Your task to perform on an android device: move an email to a new category in the gmail app Image 0: 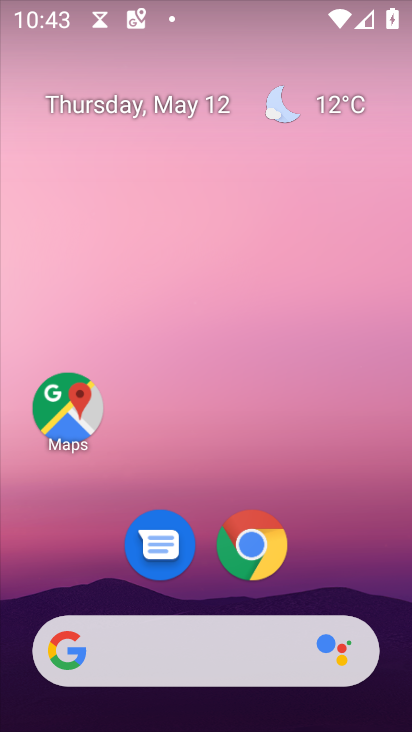
Step 0: press home button
Your task to perform on an android device: move an email to a new category in the gmail app Image 1: 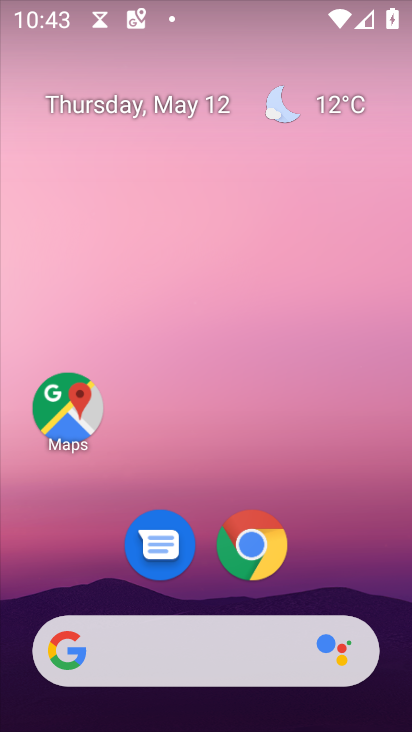
Step 1: drag from (203, 574) to (241, 242)
Your task to perform on an android device: move an email to a new category in the gmail app Image 2: 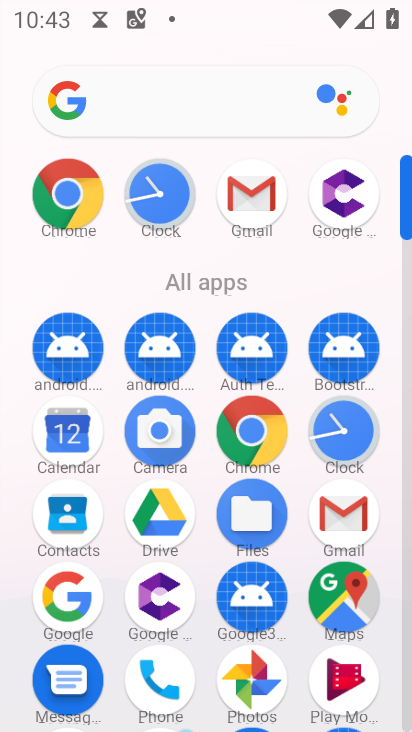
Step 2: click (254, 201)
Your task to perform on an android device: move an email to a new category in the gmail app Image 3: 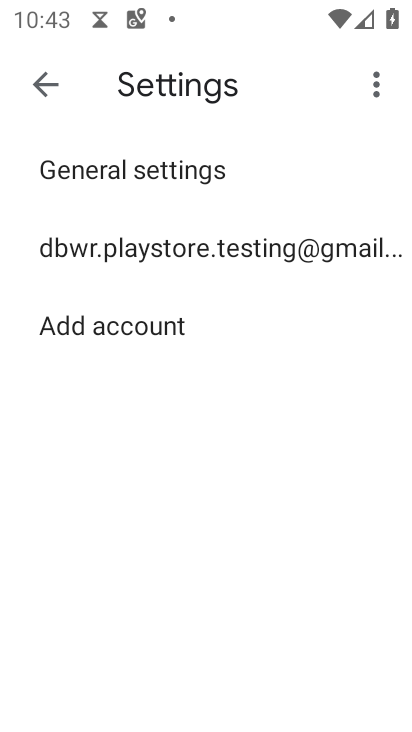
Step 3: click (35, 84)
Your task to perform on an android device: move an email to a new category in the gmail app Image 4: 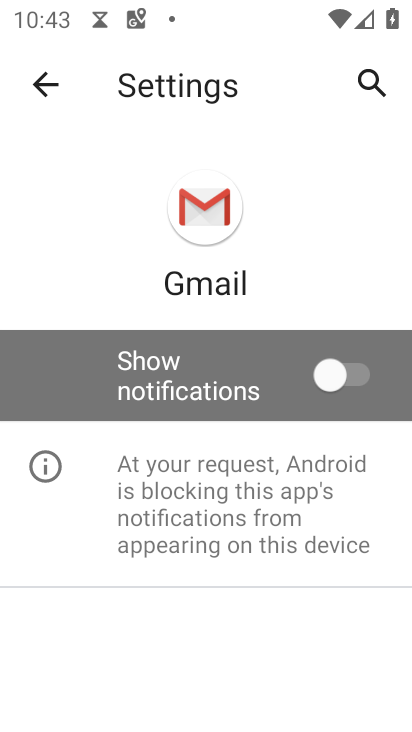
Step 4: click (49, 90)
Your task to perform on an android device: move an email to a new category in the gmail app Image 5: 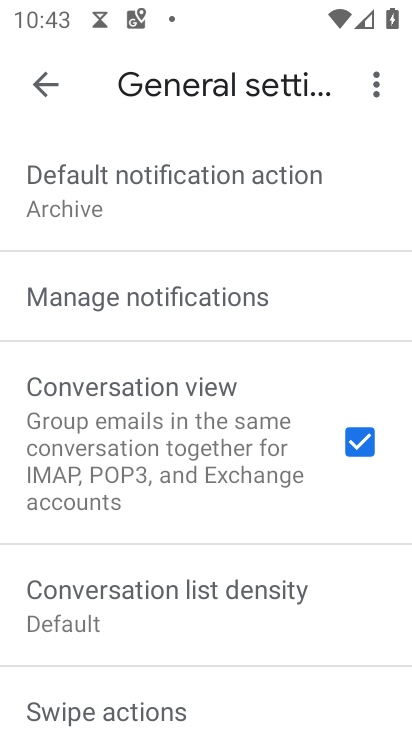
Step 5: click (49, 89)
Your task to perform on an android device: move an email to a new category in the gmail app Image 6: 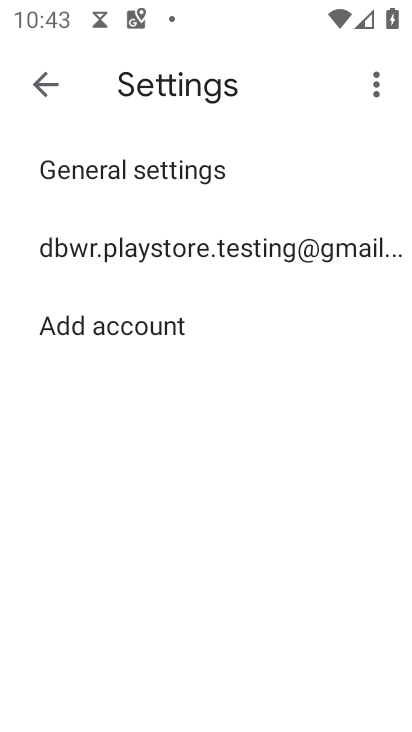
Step 6: click (49, 89)
Your task to perform on an android device: move an email to a new category in the gmail app Image 7: 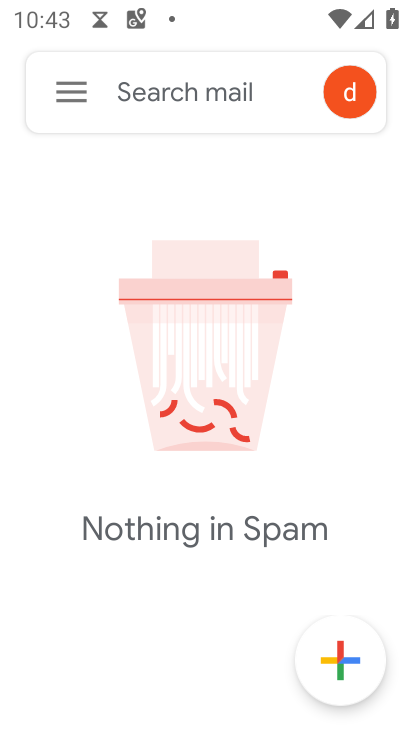
Step 7: click (70, 94)
Your task to perform on an android device: move an email to a new category in the gmail app Image 8: 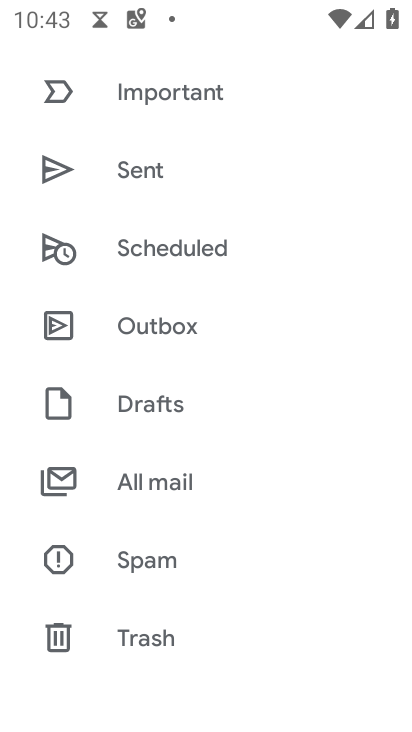
Step 8: click (171, 473)
Your task to perform on an android device: move an email to a new category in the gmail app Image 9: 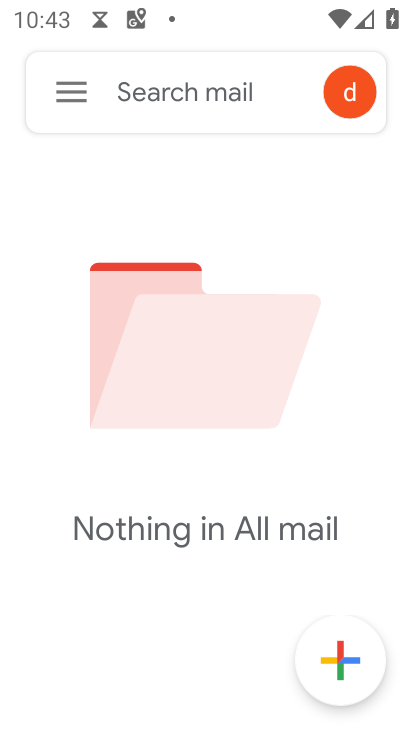
Step 9: task complete